Your task to perform on an android device: Clear all items from cart on target.com. Add macbook air to the cart on target.com Image 0: 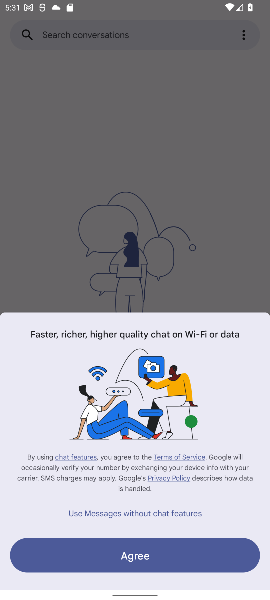
Step 0: press home button
Your task to perform on an android device: Clear all items from cart on target.com. Add macbook air to the cart on target.com Image 1: 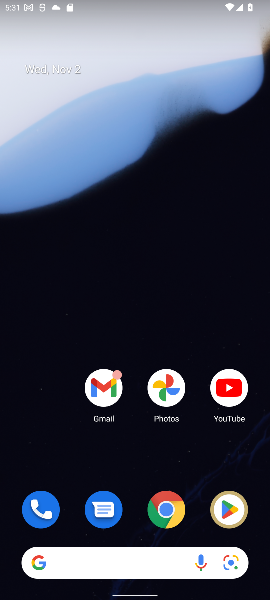
Step 1: click (141, 564)
Your task to perform on an android device: Clear all items from cart on target.com. Add macbook air to the cart on target.com Image 2: 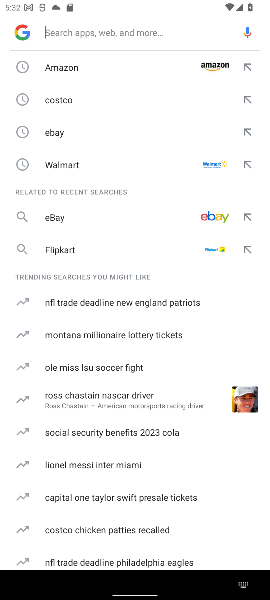
Step 2: type "target"
Your task to perform on an android device: Clear all items from cart on target.com. Add macbook air to the cart on target.com Image 3: 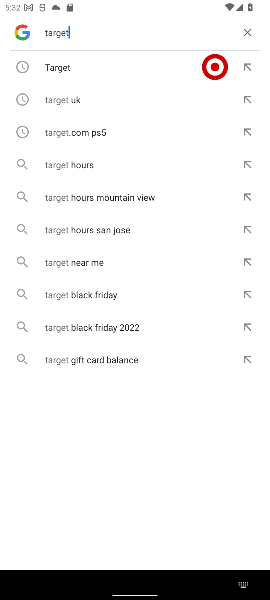
Step 3: click (57, 71)
Your task to perform on an android device: Clear all items from cart on target.com. Add macbook air to the cart on target.com Image 4: 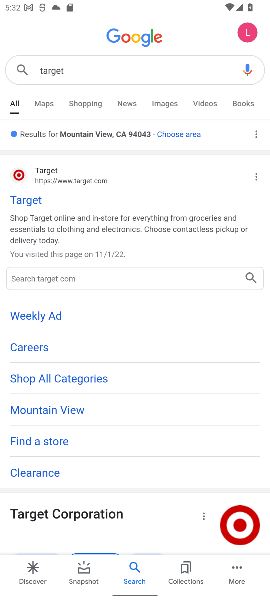
Step 4: click (28, 199)
Your task to perform on an android device: Clear all items from cart on target.com. Add macbook air to the cart on target.com Image 5: 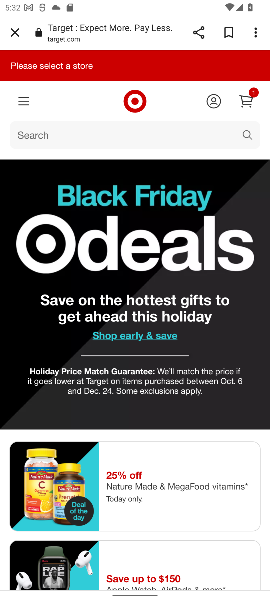
Step 5: click (248, 98)
Your task to perform on an android device: Clear all items from cart on target.com. Add macbook air to the cart on target.com Image 6: 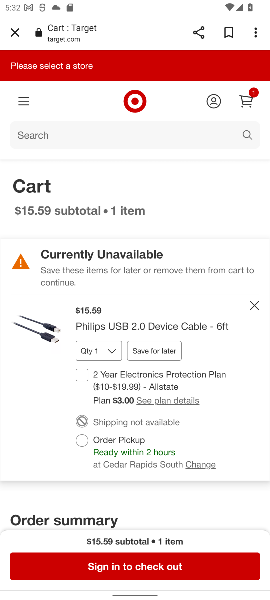
Step 6: click (253, 305)
Your task to perform on an android device: Clear all items from cart on target.com. Add macbook air to the cart on target.com Image 7: 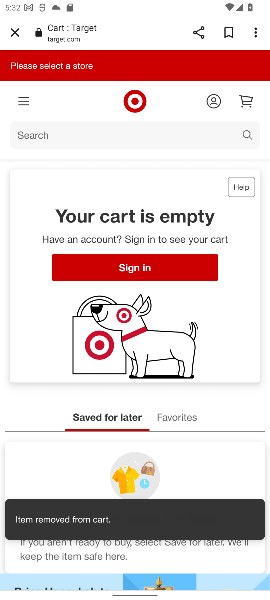
Step 7: click (55, 143)
Your task to perform on an android device: Clear all items from cart on target.com. Add macbook air to the cart on target.com Image 8: 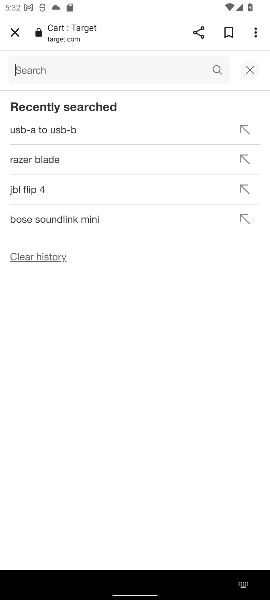
Step 8: type "macbook air"
Your task to perform on an android device: Clear all items from cart on target.com. Add macbook air to the cart on target.com Image 9: 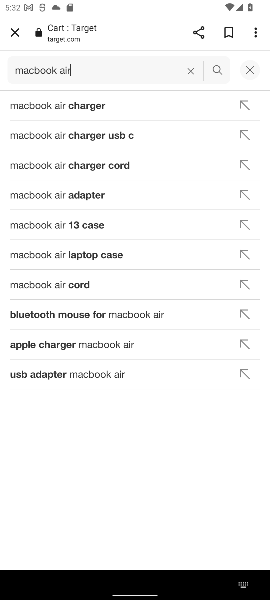
Step 9: click (216, 68)
Your task to perform on an android device: Clear all items from cart on target.com. Add macbook air to the cart on target.com Image 10: 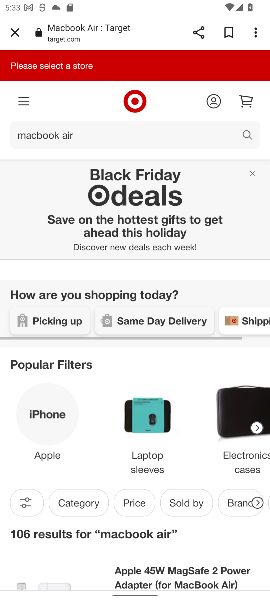
Step 10: drag from (112, 349) to (122, 249)
Your task to perform on an android device: Clear all items from cart on target.com. Add macbook air to the cart on target.com Image 11: 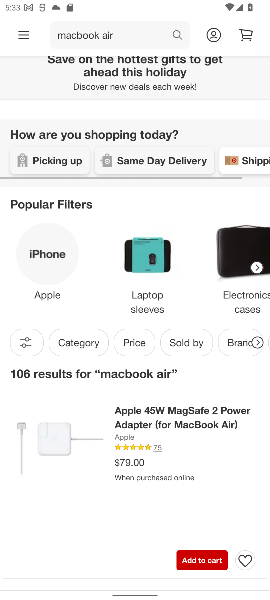
Step 11: drag from (186, 364) to (183, 292)
Your task to perform on an android device: Clear all items from cart on target.com. Add macbook air to the cart on target.com Image 12: 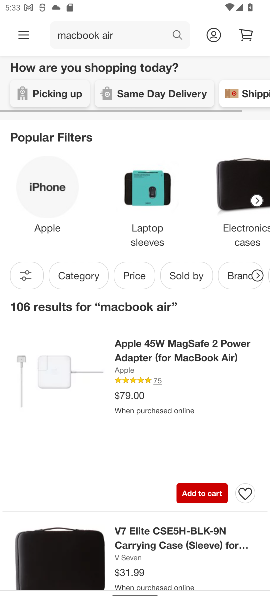
Step 12: click (195, 496)
Your task to perform on an android device: Clear all items from cart on target.com. Add macbook air to the cart on target.com Image 13: 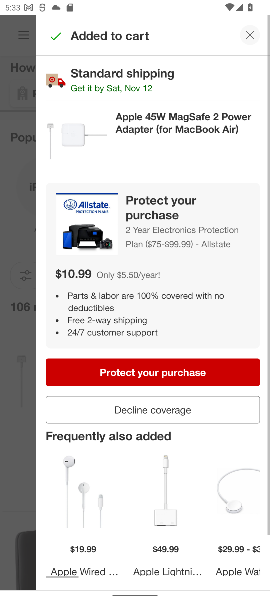
Step 13: click (246, 34)
Your task to perform on an android device: Clear all items from cart on target.com. Add macbook air to the cart on target.com Image 14: 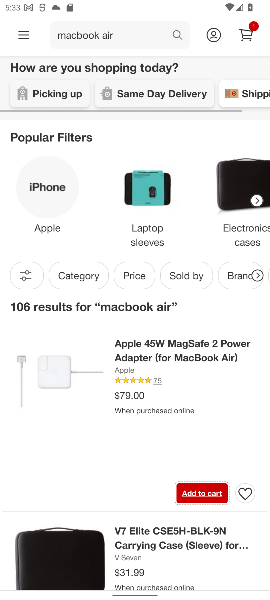
Step 14: task complete